Your task to perform on an android device: toggle notification dots Image 0: 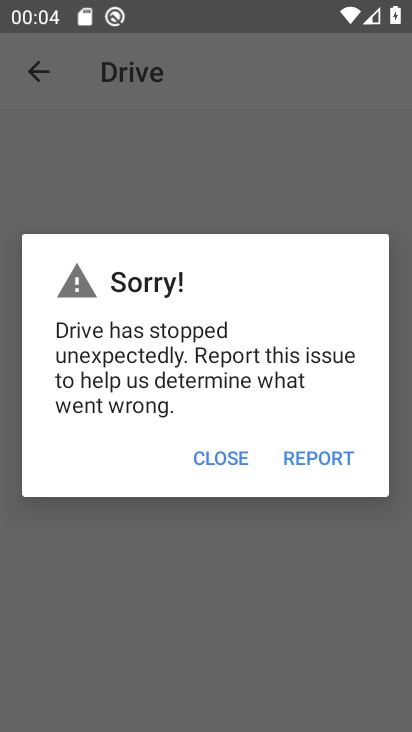
Step 0: press home button
Your task to perform on an android device: toggle notification dots Image 1: 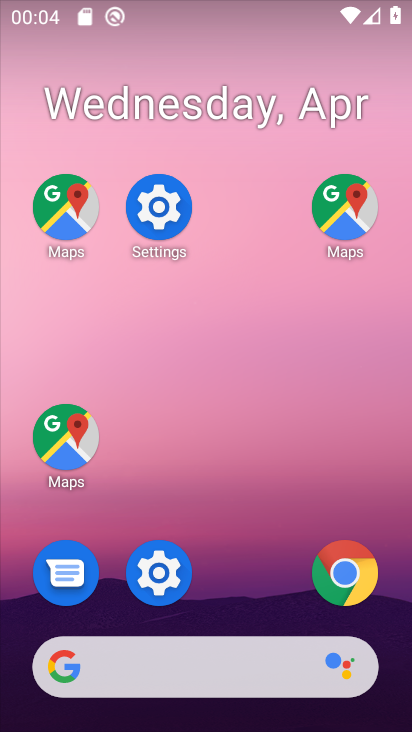
Step 1: drag from (149, 481) to (119, 403)
Your task to perform on an android device: toggle notification dots Image 2: 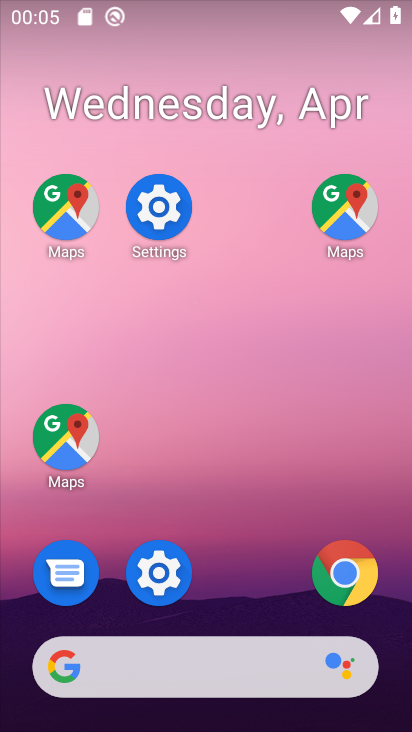
Step 2: drag from (276, 701) to (142, 183)
Your task to perform on an android device: toggle notification dots Image 3: 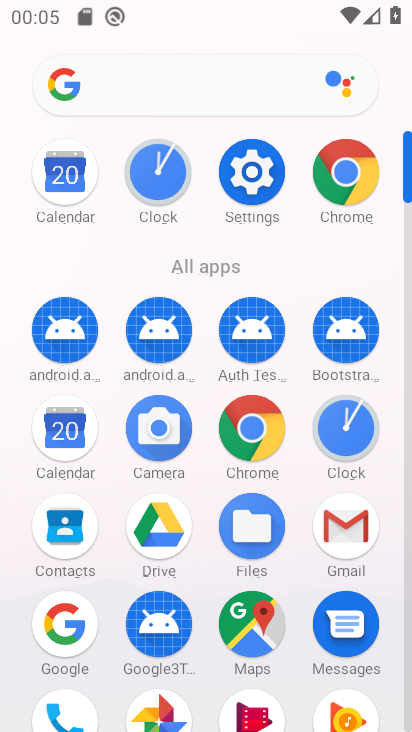
Step 3: click (252, 178)
Your task to perform on an android device: toggle notification dots Image 4: 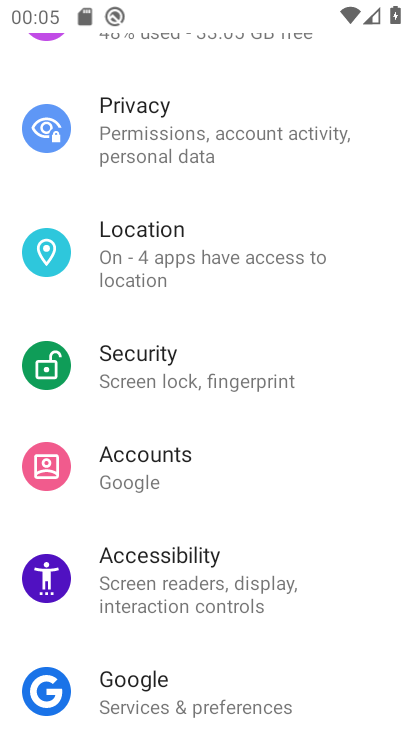
Step 4: click (252, 178)
Your task to perform on an android device: toggle notification dots Image 5: 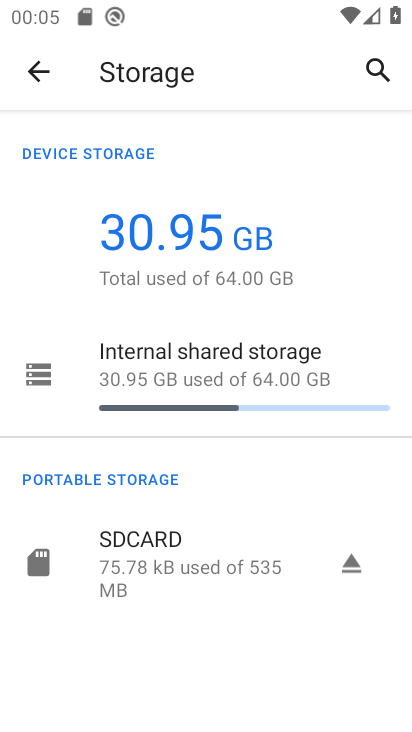
Step 5: click (34, 61)
Your task to perform on an android device: toggle notification dots Image 6: 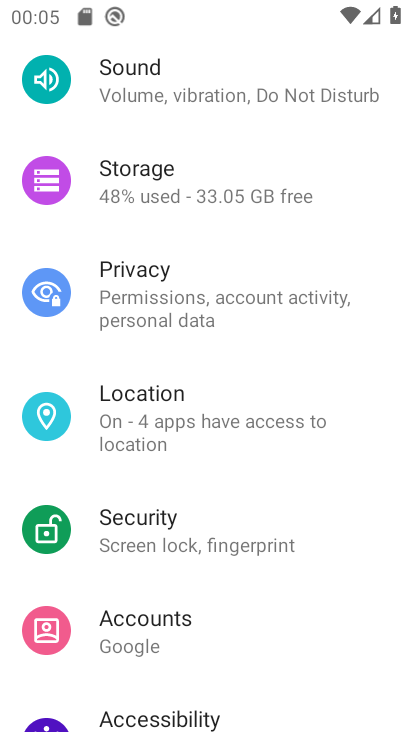
Step 6: drag from (156, 407) to (250, 489)
Your task to perform on an android device: toggle notification dots Image 7: 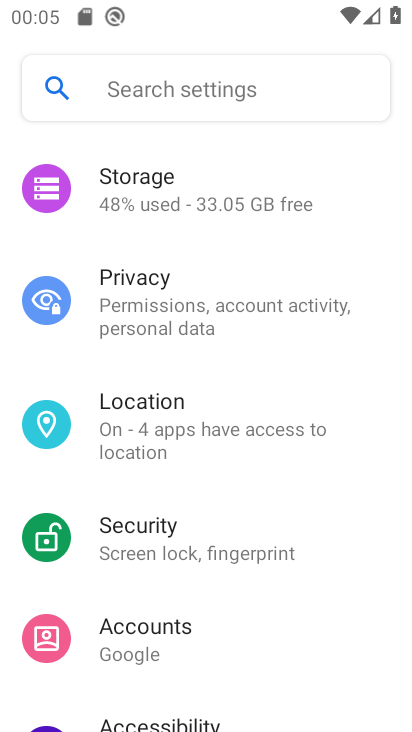
Step 7: drag from (198, 276) to (235, 402)
Your task to perform on an android device: toggle notification dots Image 8: 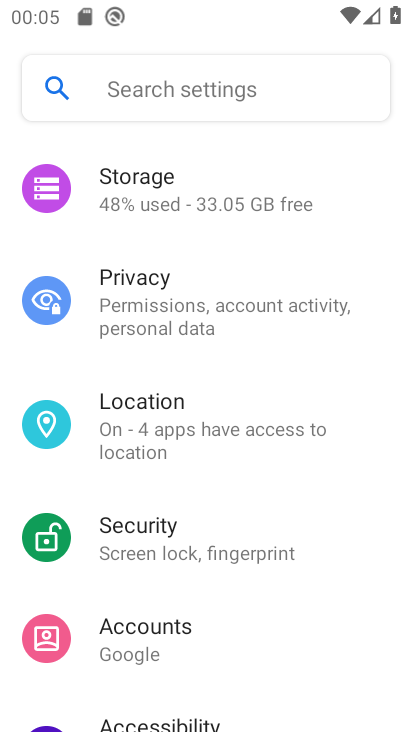
Step 8: drag from (213, 487) to (187, 413)
Your task to perform on an android device: toggle notification dots Image 9: 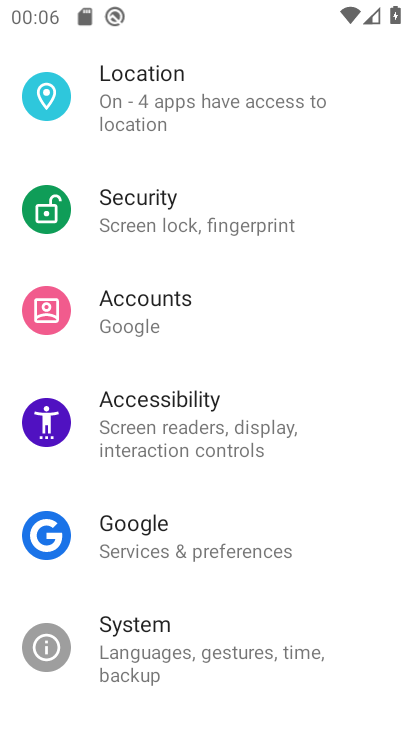
Step 9: drag from (204, 473) to (163, 603)
Your task to perform on an android device: toggle notification dots Image 10: 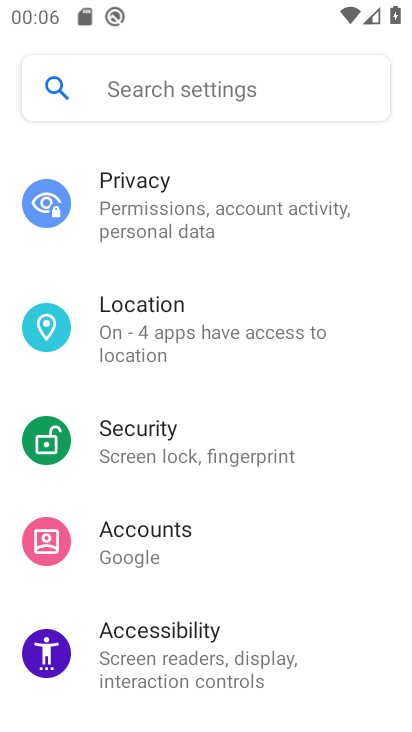
Step 10: drag from (139, 201) to (225, 541)
Your task to perform on an android device: toggle notification dots Image 11: 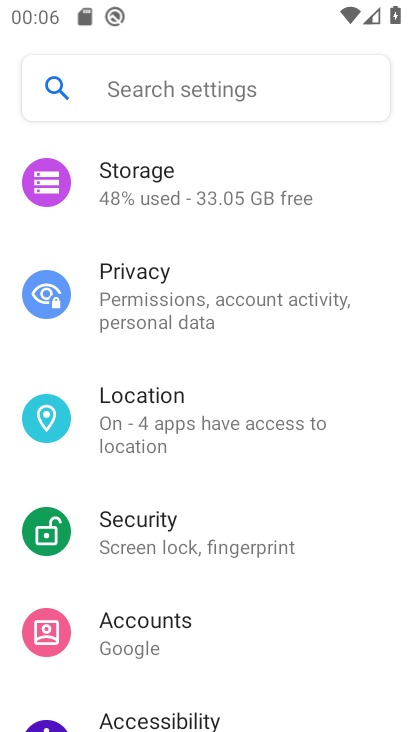
Step 11: drag from (158, 243) to (179, 572)
Your task to perform on an android device: toggle notification dots Image 12: 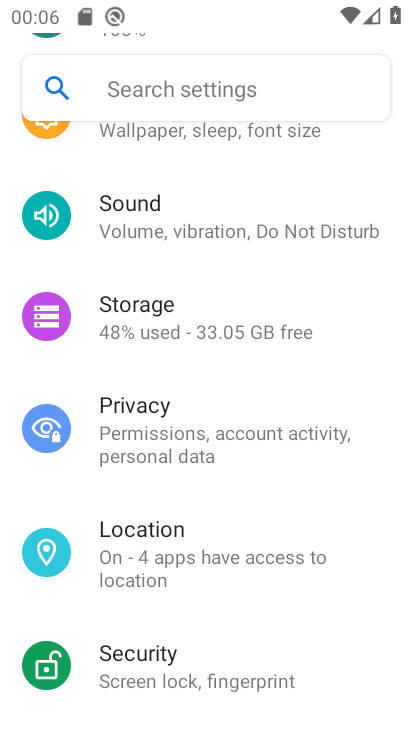
Step 12: drag from (173, 247) to (173, 569)
Your task to perform on an android device: toggle notification dots Image 13: 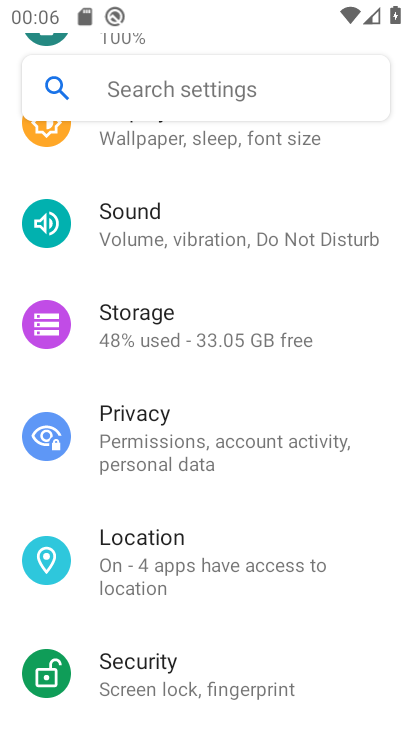
Step 13: drag from (141, 276) to (201, 608)
Your task to perform on an android device: toggle notification dots Image 14: 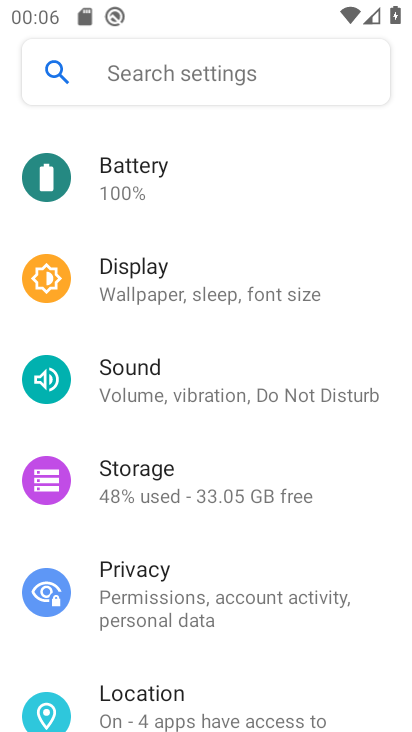
Step 14: drag from (198, 223) to (196, 594)
Your task to perform on an android device: toggle notification dots Image 15: 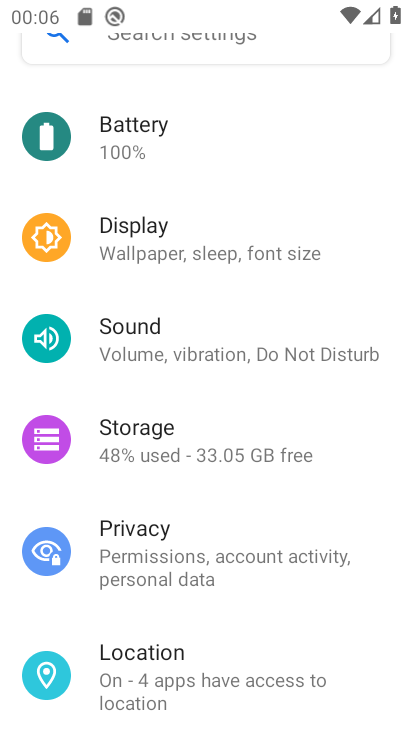
Step 15: drag from (159, 233) to (209, 502)
Your task to perform on an android device: toggle notification dots Image 16: 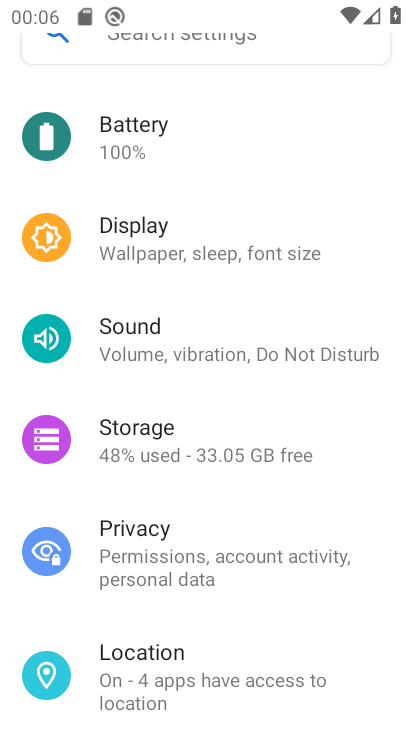
Step 16: drag from (168, 365) to (181, 567)
Your task to perform on an android device: toggle notification dots Image 17: 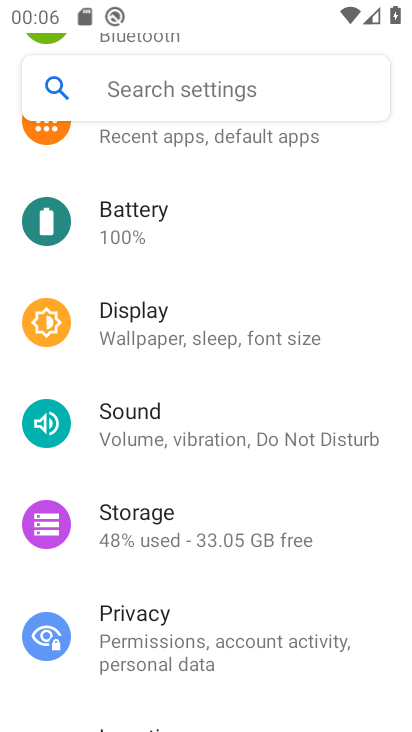
Step 17: drag from (176, 512) to (234, 539)
Your task to perform on an android device: toggle notification dots Image 18: 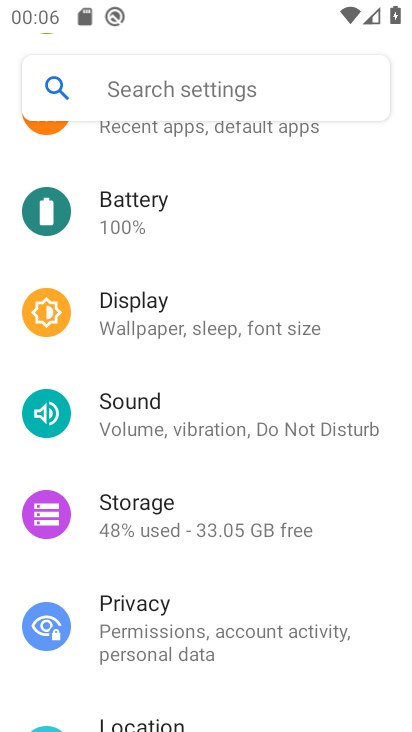
Step 18: drag from (184, 209) to (198, 567)
Your task to perform on an android device: toggle notification dots Image 19: 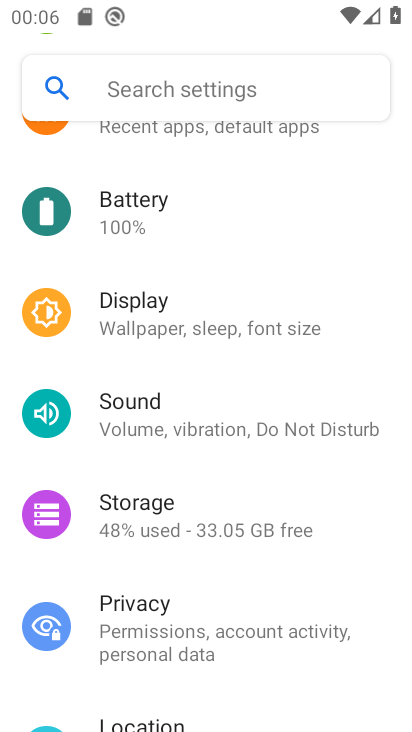
Step 19: drag from (165, 415) to (171, 567)
Your task to perform on an android device: toggle notification dots Image 20: 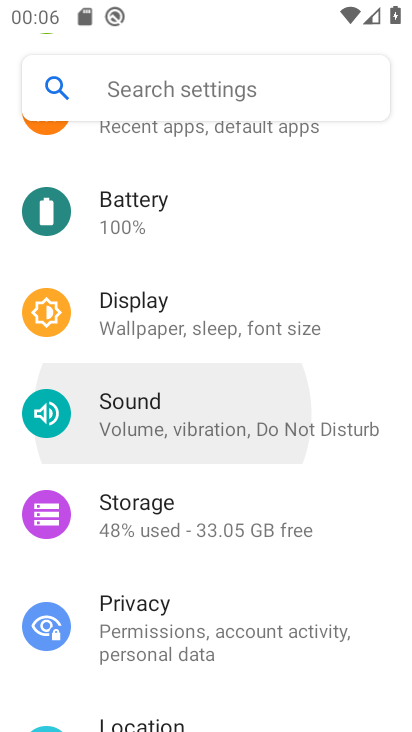
Step 20: drag from (233, 456) to (233, 495)
Your task to perform on an android device: toggle notification dots Image 21: 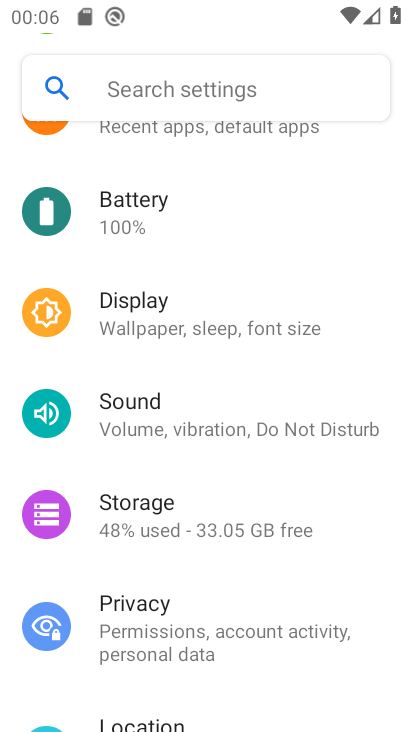
Step 21: drag from (156, 235) to (167, 543)
Your task to perform on an android device: toggle notification dots Image 22: 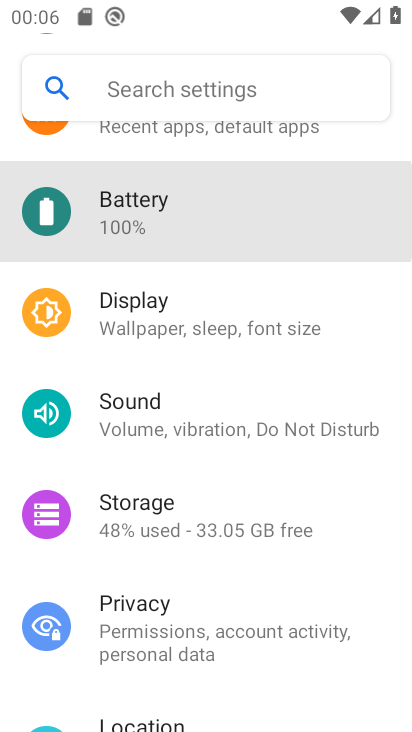
Step 22: drag from (212, 314) to (261, 541)
Your task to perform on an android device: toggle notification dots Image 23: 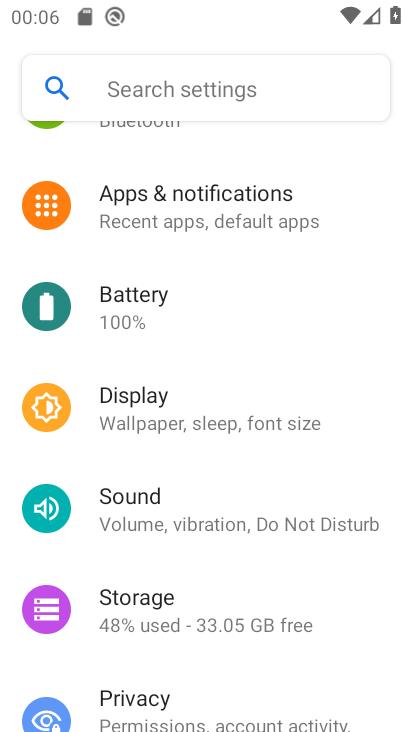
Step 23: click (185, 194)
Your task to perform on an android device: toggle notification dots Image 24: 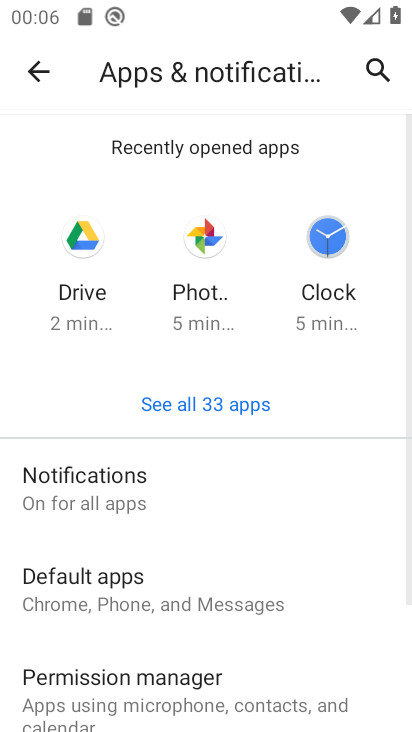
Step 24: drag from (220, 630) to (180, 207)
Your task to perform on an android device: toggle notification dots Image 25: 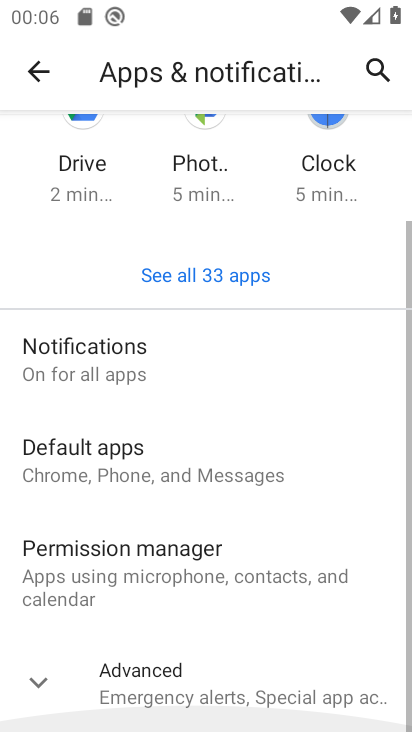
Step 25: drag from (101, 503) to (108, 135)
Your task to perform on an android device: toggle notification dots Image 26: 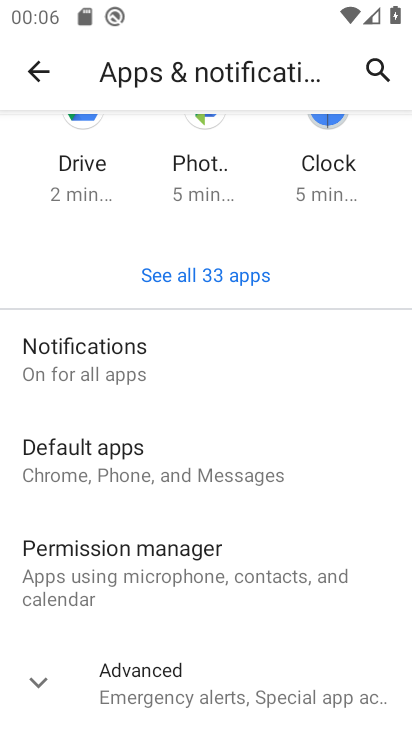
Step 26: click (147, 685)
Your task to perform on an android device: toggle notification dots Image 27: 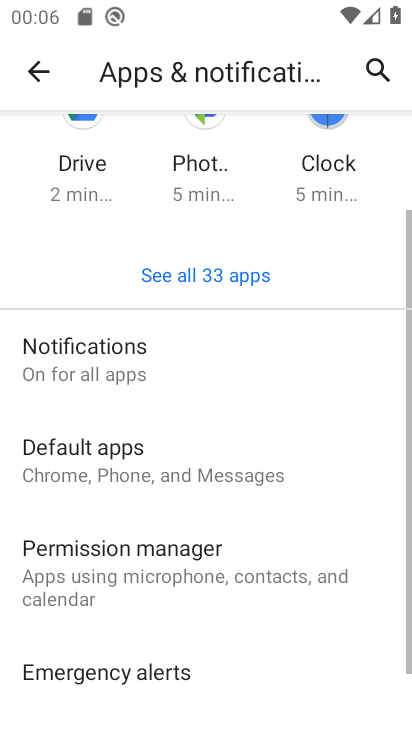
Step 27: drag from (160, 595) to (119, 134)
Your task to perform on an android device: toggle notification dots Image 28: 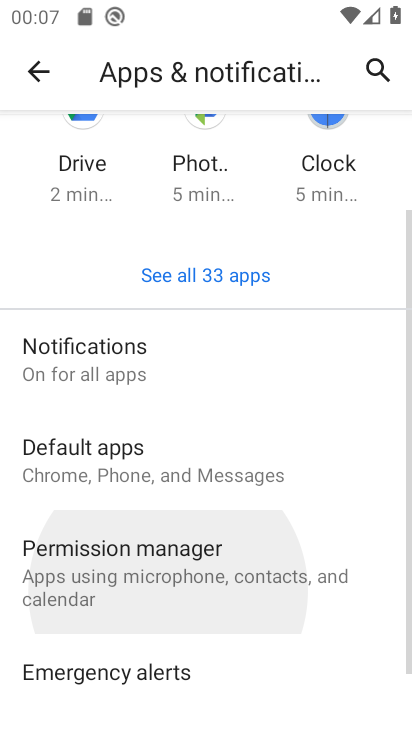
Step 28: drag from (213, 553) to (130, 129)
Your task to perform on an android device: toggle notification dots Image 29: 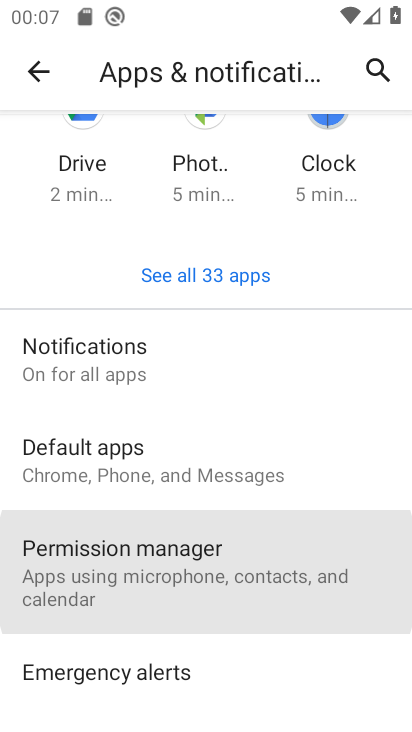
Step 29: drag from (124, 493) to (91, 189)
Your task to perform on an android device: toggle notification dots Image 30: 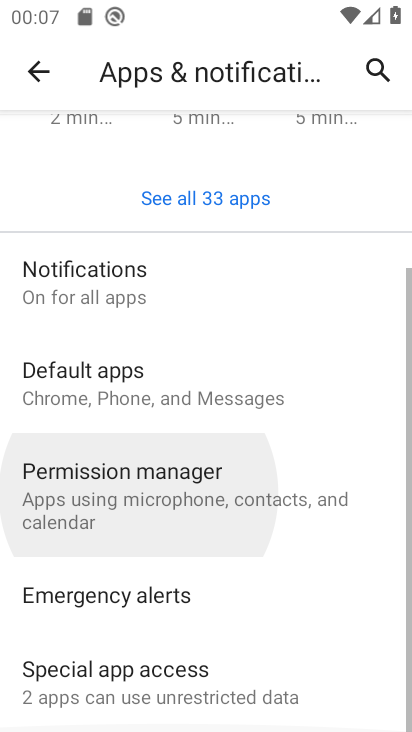
Step 30: drag from (189, 448) to (143, 132)
Your task to perform on an android device: toggle notification dots Image 31: 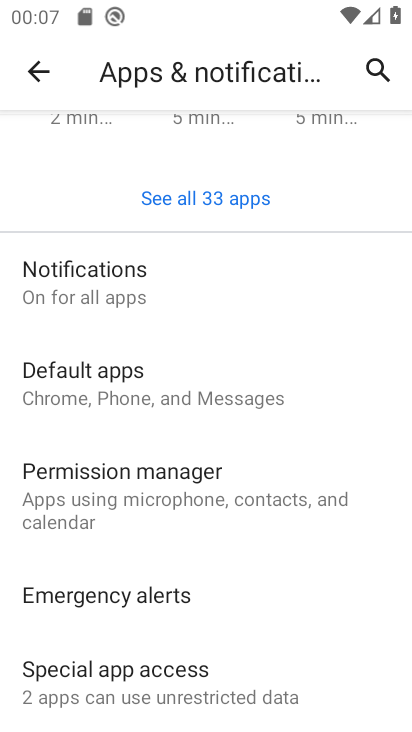
Step 31: click (65, 295)
Your task to perform on an android device: toggle notification dots Image 32: 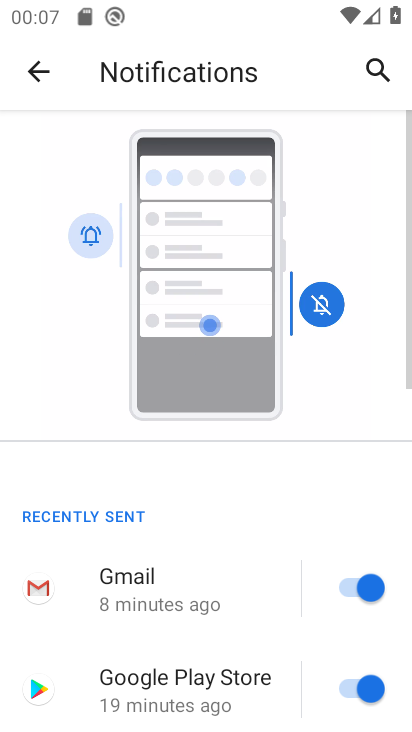
Step 32: drag from (158, 615) to (55, 261)
Your task to perform on an android device: toggle notification dots Image 33: 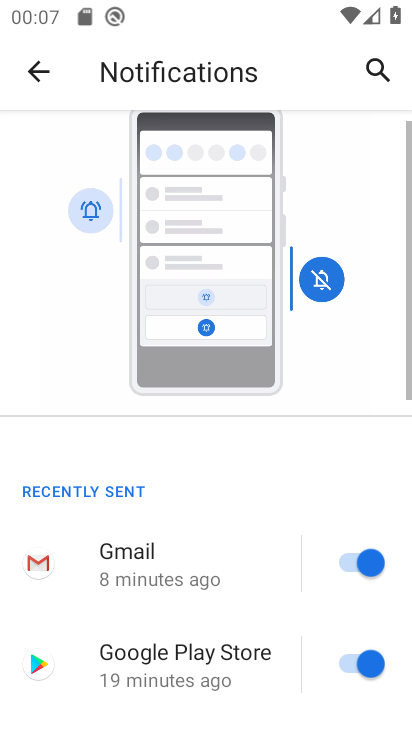
Step 33: drag from (102, 311) to (140, 232)
Your task to perform on an android device: toggle notification dots Image 34: 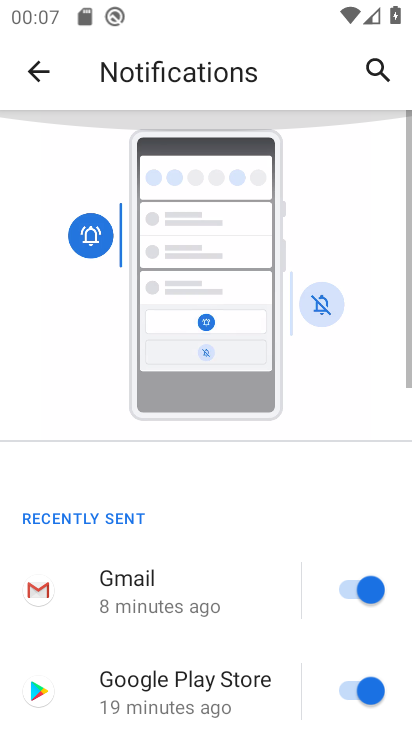
Step 34: drag from (148, 466) to (149, 283)
Your task to perform on an android device: toggle notification dots Image 35: 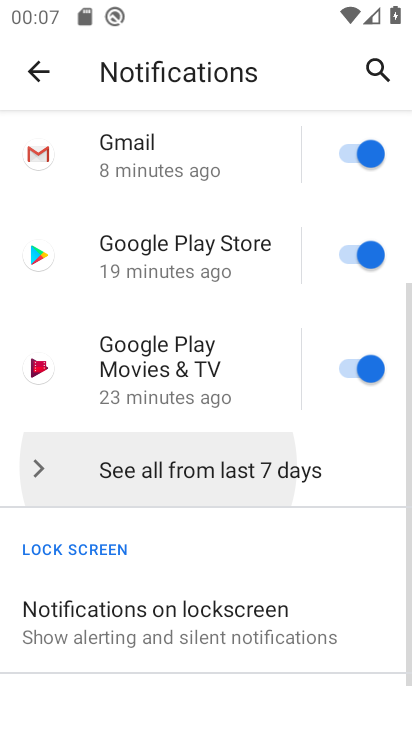
Step 35: drag from (232, 629) to (190, 143)
Your task to perform on an android device: toggle notification dots Image 36: 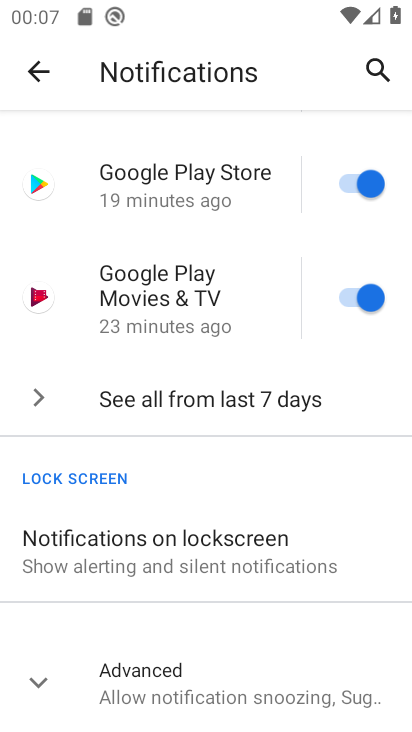
Step 36: click (175, 696)
Your task to perform on an android device: toggle notification dots Image 37: 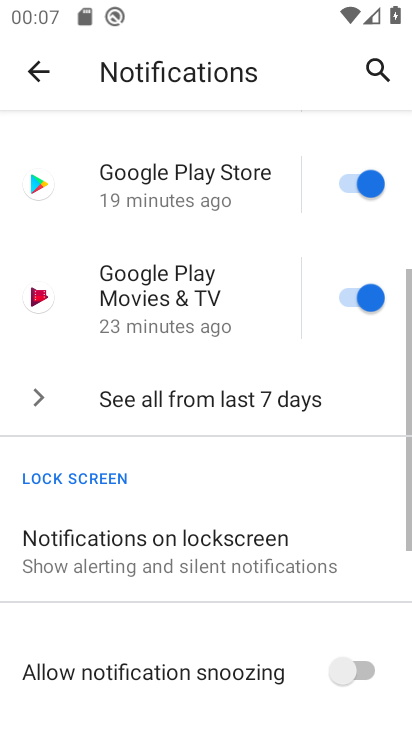
Step 37: drag from (189, 706) to (130, 206)
Your task to perform on an android device: toggle notification dots Image 38: 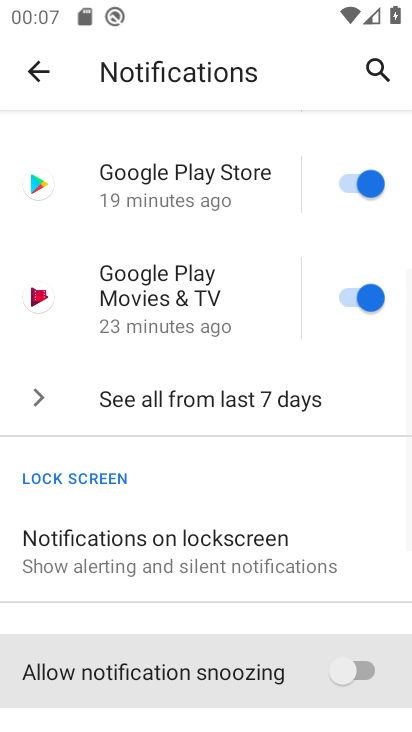
Step 38: drag from (167, 600) to (179, 275)
Your task to perform on an android device: toggle notification dots Image 39: 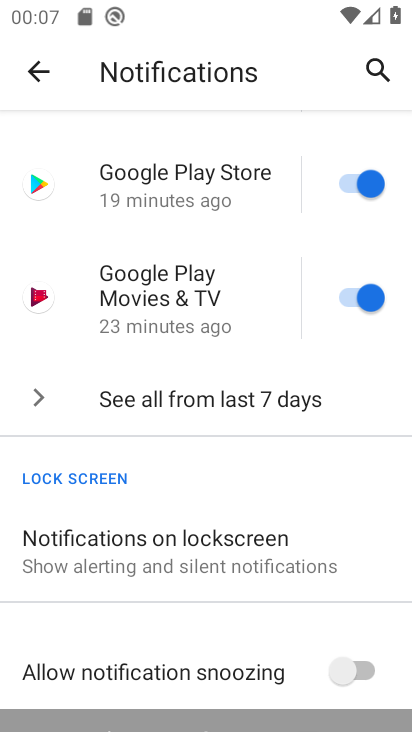
Step 39: drag from (224, 559) to (205, 200)
Your task to perform on an android device: toggle notification dots Image 40: 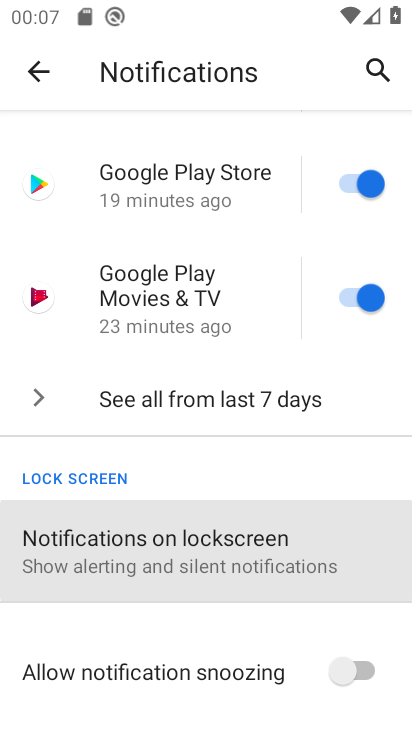
Step 40: drag from (245, 492) to (208, 174)
Your task to perform on an android device: toggle notification dots Image 41: 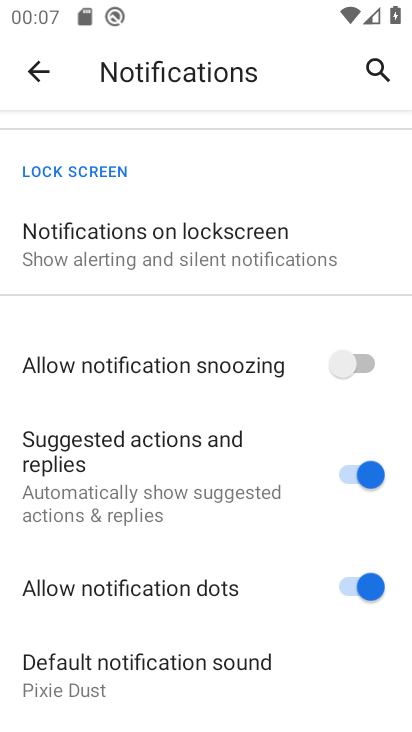
Step 41: click (373, 574)
Your task to perform on an android device: toggle notification dots Image 42: 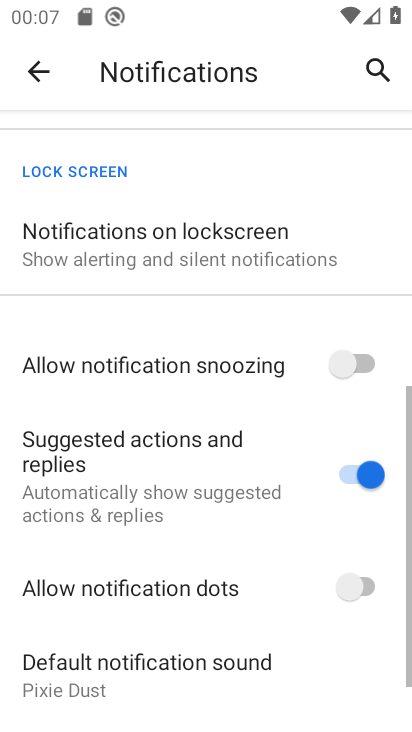
Step 42: click (369, 592)
Your task to perform on an android device: toggle notification dots Image 43: 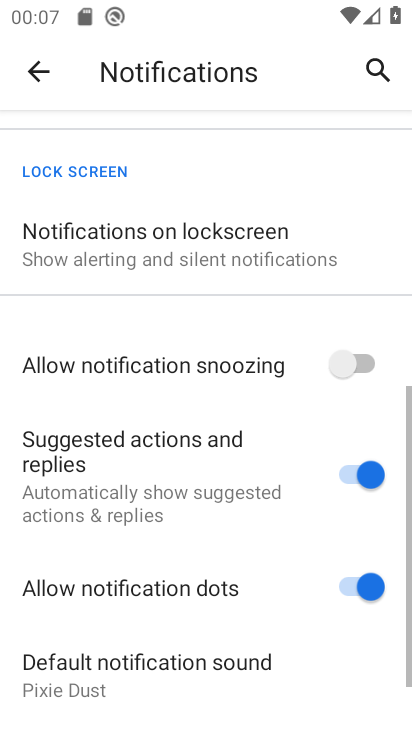
Step 43: task complete